Your task to perform on an android device: Go to Yahoo.com Image 0: 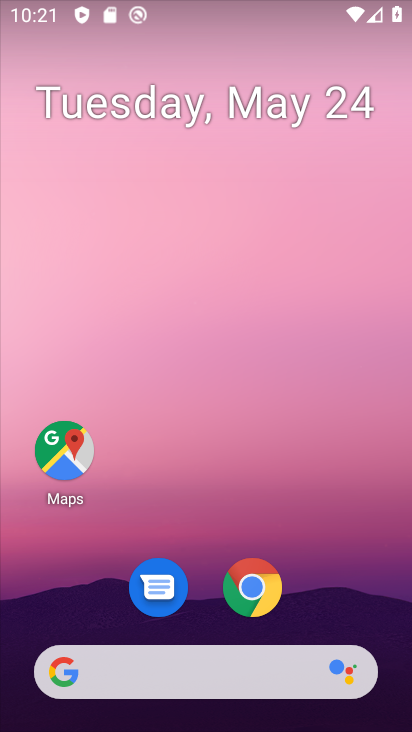
Step 0: drag from (264, 566) to (196, 64)
Your task to perform on an android device: Go to Yahoo.com Image 1: 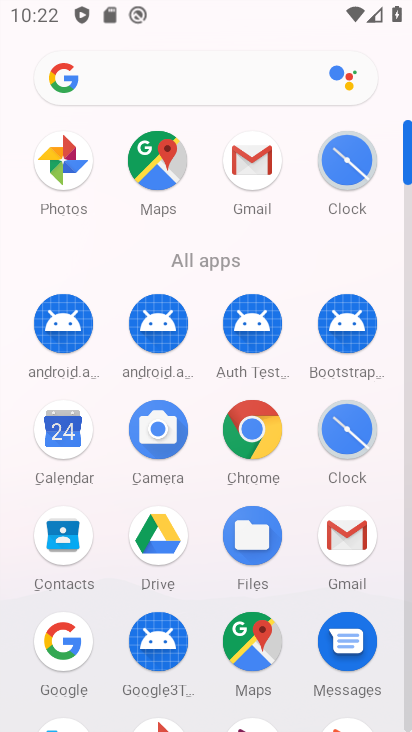
Step 1: click (254, 435)
Your task to perform on an android device: Go to Yahoo.com Image 2: 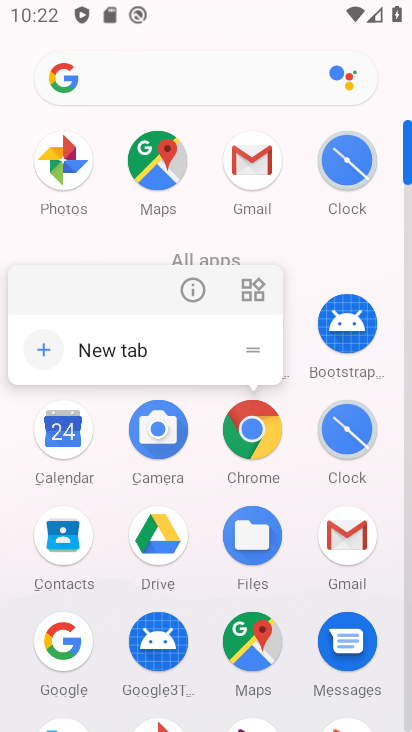
Step 2: click (259, 424)
Your task to perform on an android device: Go to Yahoo.com Image 3: 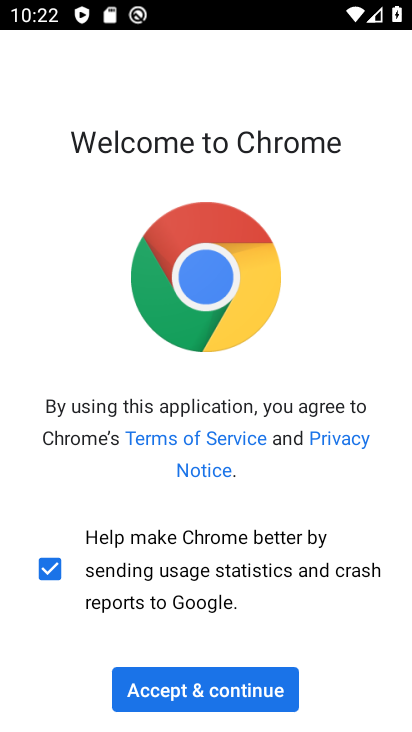
Step 3: click (203, 689)
Your task to perform on an android device: Go to Yahoo.com Image 4: 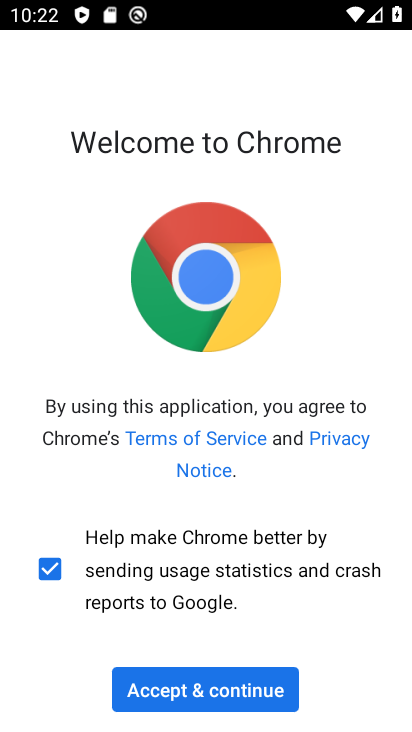
Step 4: click (211, 690)
Your task to perform on an android device: Go to Yahoo.com Image 5: 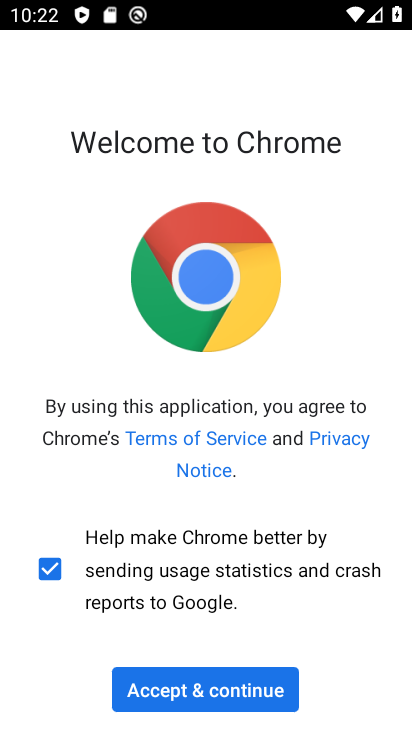
Step 5: click (251, 693)
Your task to perform on an android device: Go to Yahoo.com Image 6: 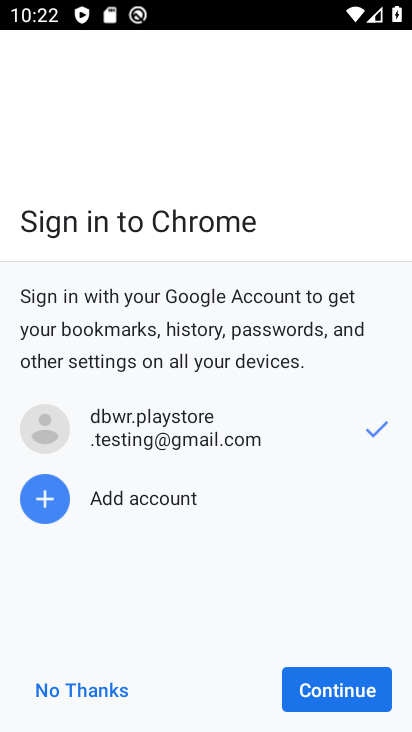
Step 6: click (240, 682)
Your task to perform on an android device: Go to Yahoo.com Image 7: 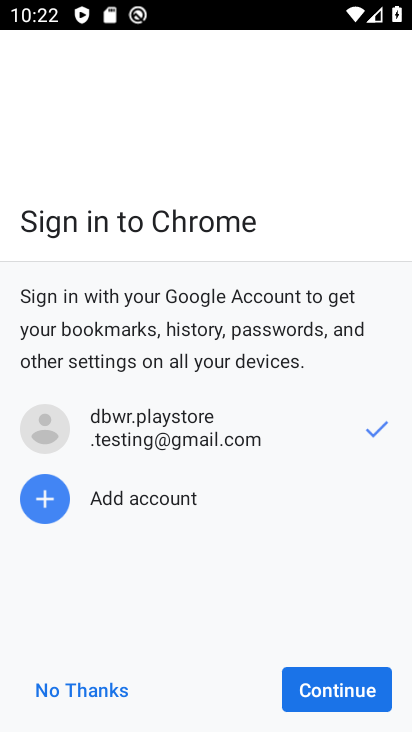
Step 7: click (379, 693)
Your task to perform on an android device: Go to Yahoo.com Image 8: 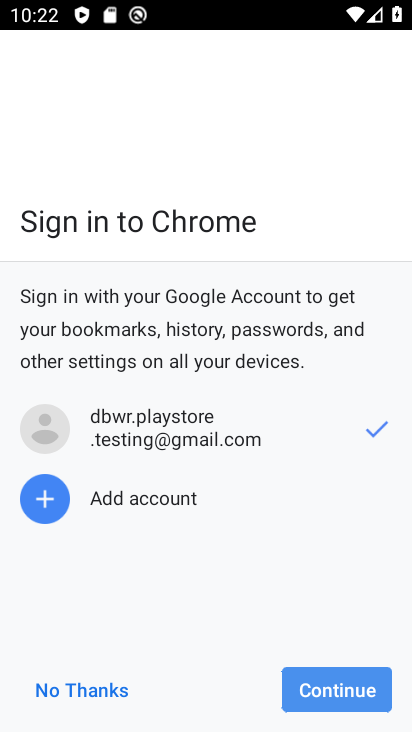
Step 8: click (369, 691)
Your task to perform on an android device: Go to Yahoo.com Image 9: 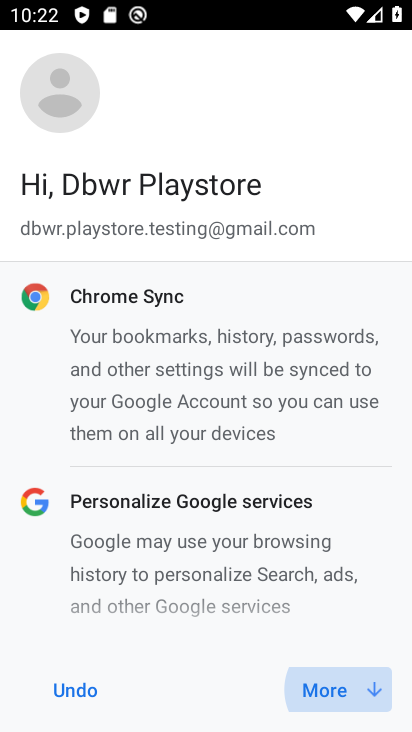
Step 9: click (358, 688)
Your task to perform on an android device: Go to Yahoo.com Image 10: 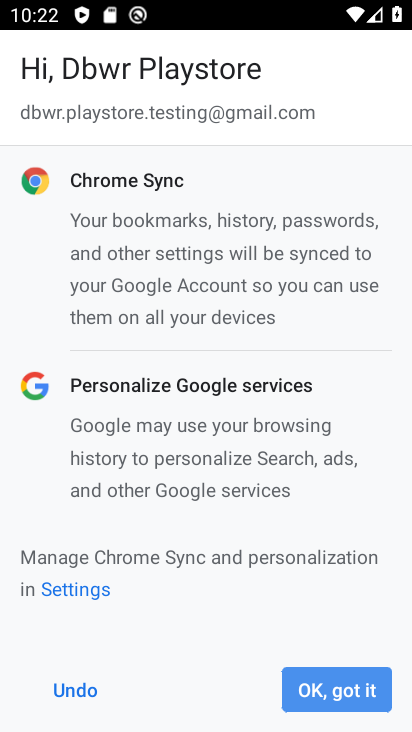
Step 10: click (357, 685)
Your task to perform on an android device: Go to Yahoo.com Image 11: 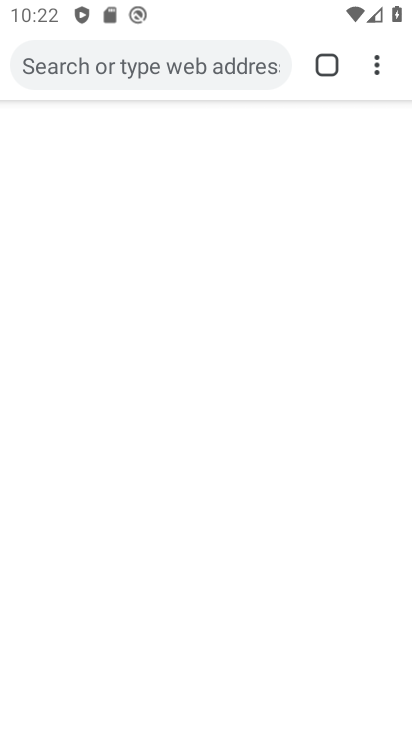
Step 11: click (356, 683)
Your task to perform on an android device: Go to Yahoo.com Image 12: 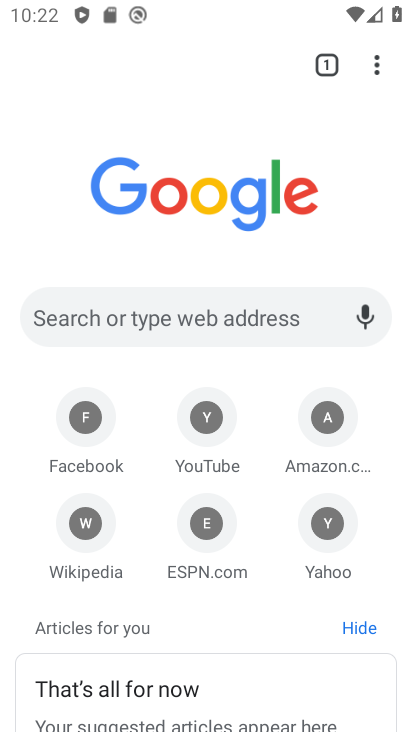
Step 12: click (315, 521)
Your task to perform on an android device: Go to Yahoo.com Image 13: 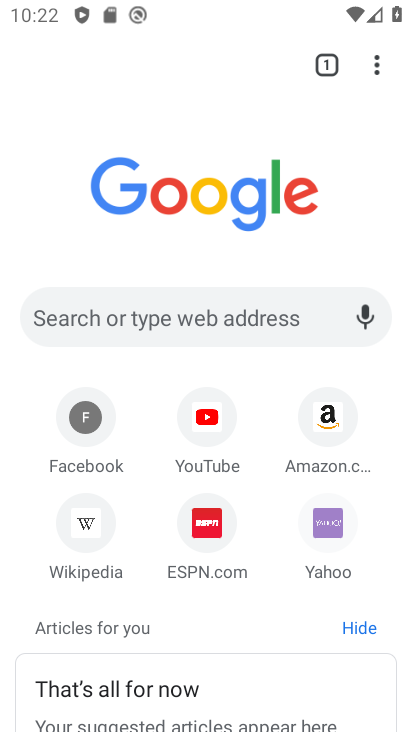
Step 13: click (315, 521)
Your task to perform on an android device: Go to Yahoo.com Image 14: 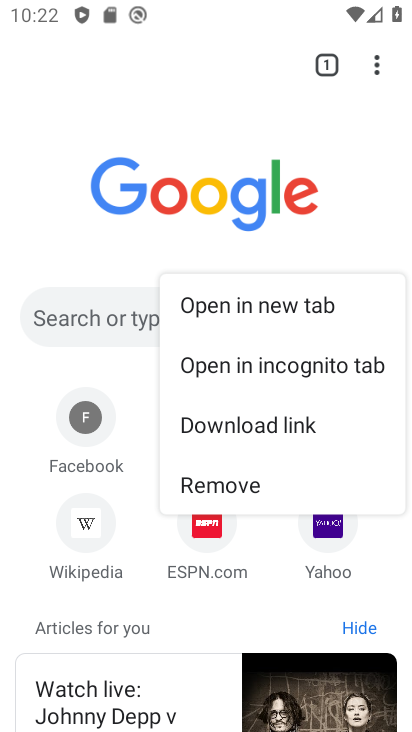
Step 14: click (243, 301)
Your task to perform on an android device: Go to Yahoo.com Image 15: 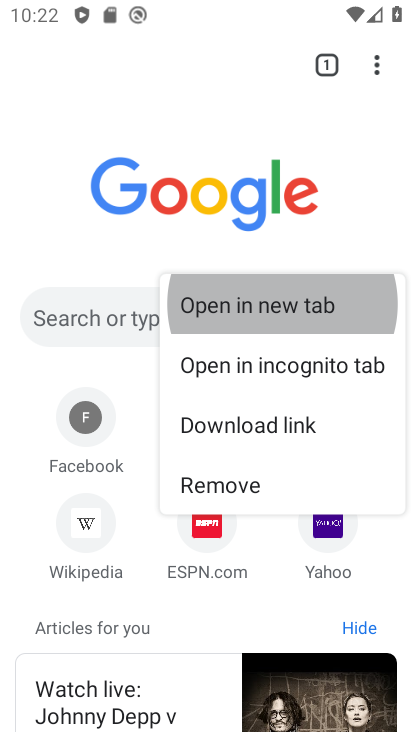
Step 15: click (243, 301)
Your task to perform on an android device: Go to Yahoo.com Image 16: 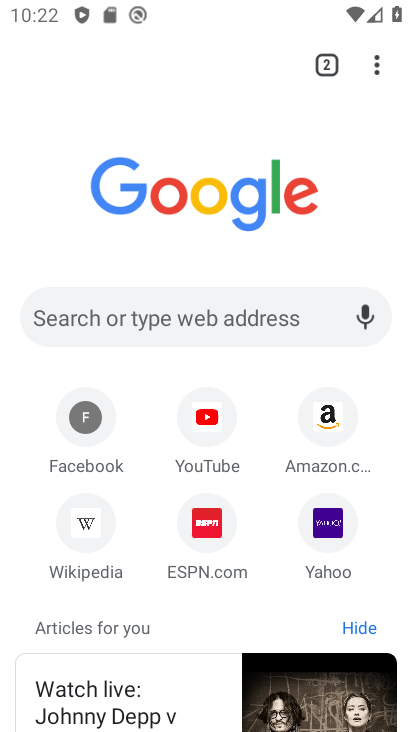
Step 16: click (322, 525)
Your task to perform on an android device: Go to Yahoo.com Image 17: 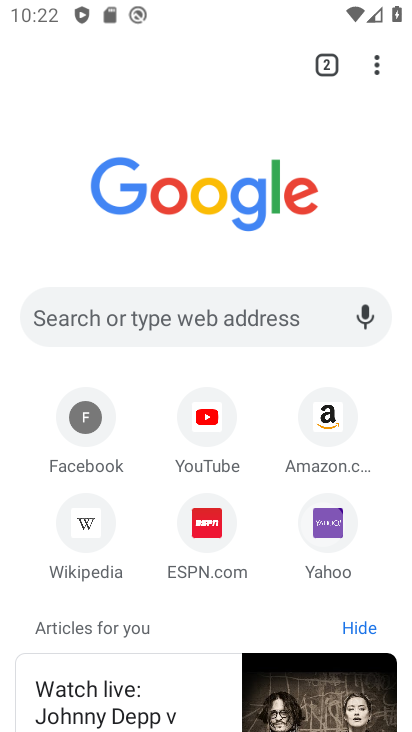
Step 17: click (323, 524)
Your task to perform on an android device: Go to Yahoo.com Image 18: 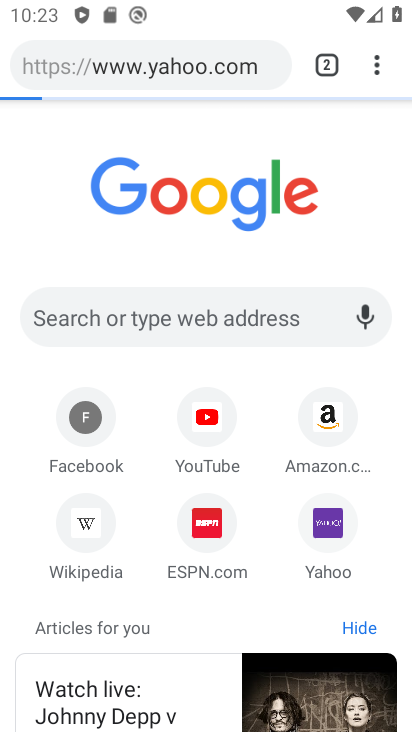
Step 18: click (324, 524)
Your task to perform on an android device: Go to Yahoo.com Image 19: 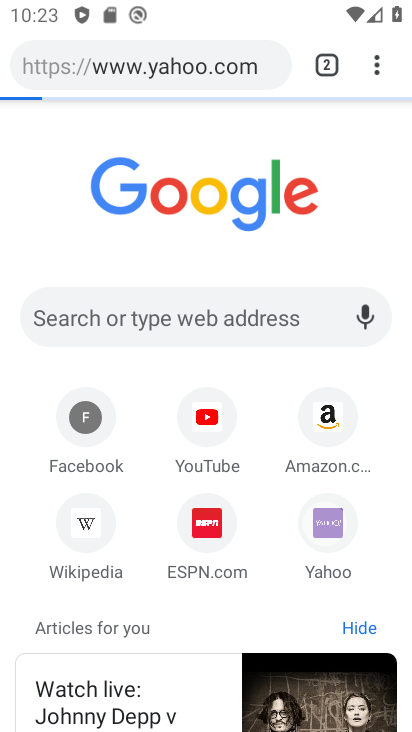
Step 19: click (326, 524)
Your task to perform on an android device: Go to Yahoo.com Image 20: 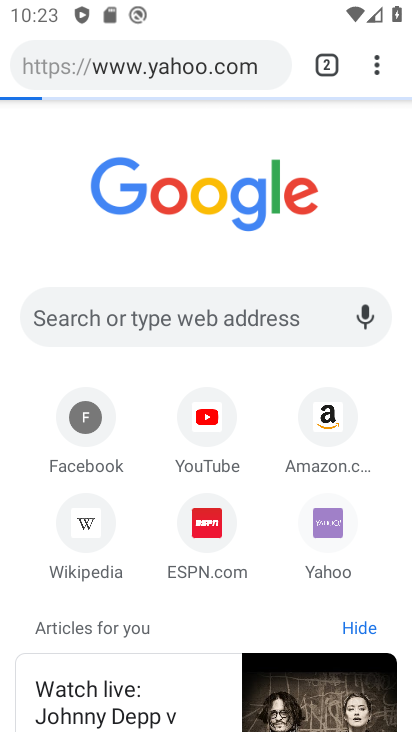
Step 20: click (325, 523)
Your task to perform on an android device: Go to Yahoo.com Image 21: 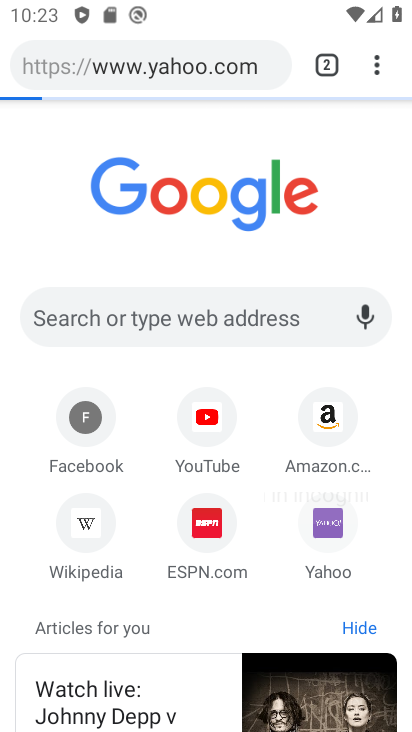
Step 21: click (325, 523)
Your task to perform on an android device: Go to Yahoo.com Image 22: 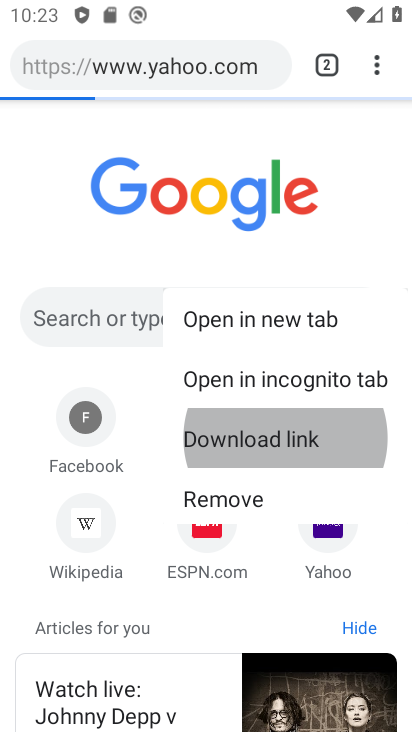
Step 22: click (325, 523)
Your task to perform on an android device: Go to Yahoo.com Image 23: 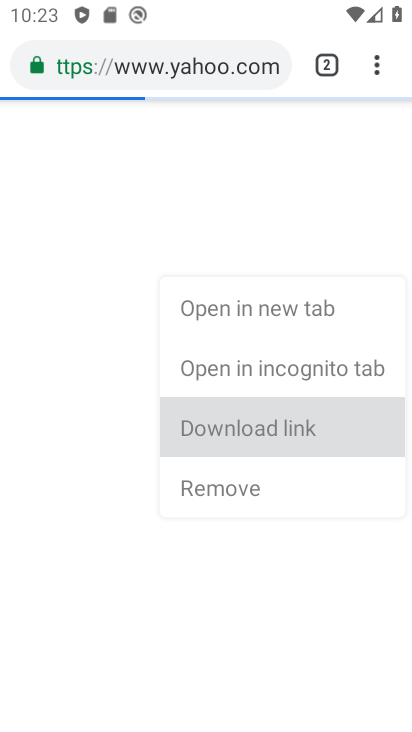
Step 23: click (324, 523)
Your task to perform on an android device: Go to Yahoo.com Image 24: 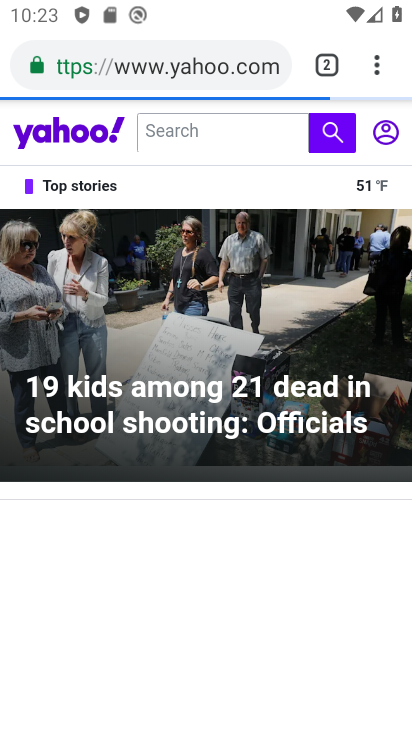
Step 24: task complete